Your task to perform on an android device: see sites visited before in the chrome app Image 0: 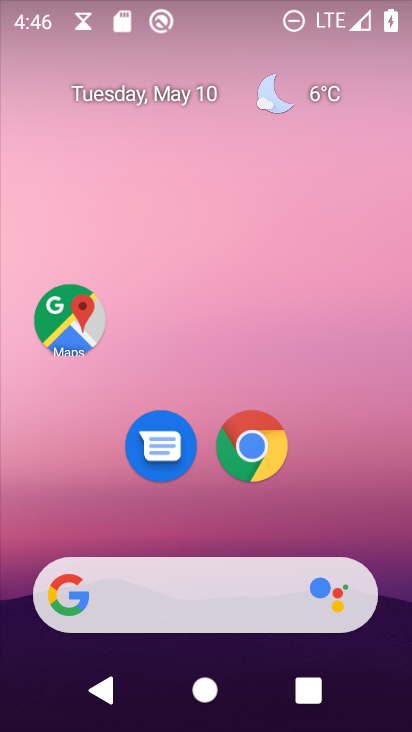
Step 0: click (255, 442)
Your task to perform on an android device: see sites visited before in the chrome app Image 1: 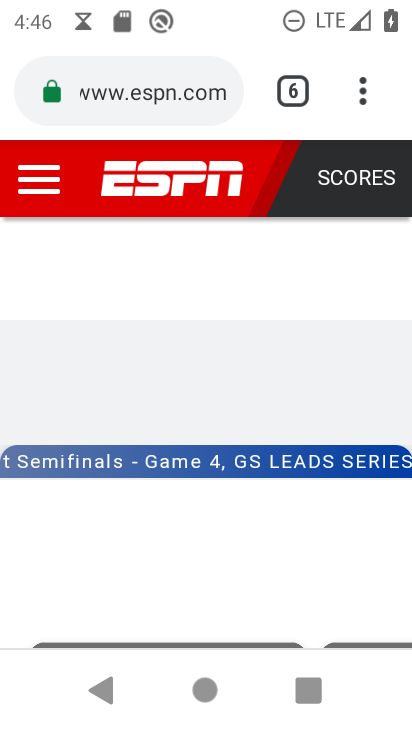
Step 1: click (363, 77)
Your task to perform on an android device: see sites visited before in the chrome app Image 2: 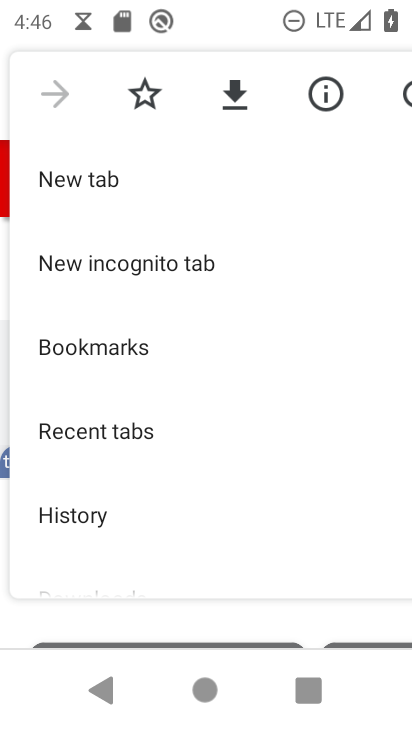
Step 2: click (122, 499)
Your task to perform on an android device: see sites visited before in the chrome app Image 3: 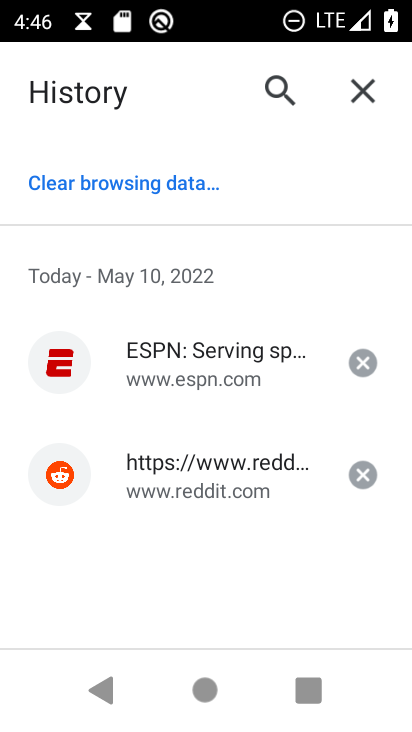
Step 3: task complete